Your task to perform on an android device: Go to eBay Image 0: 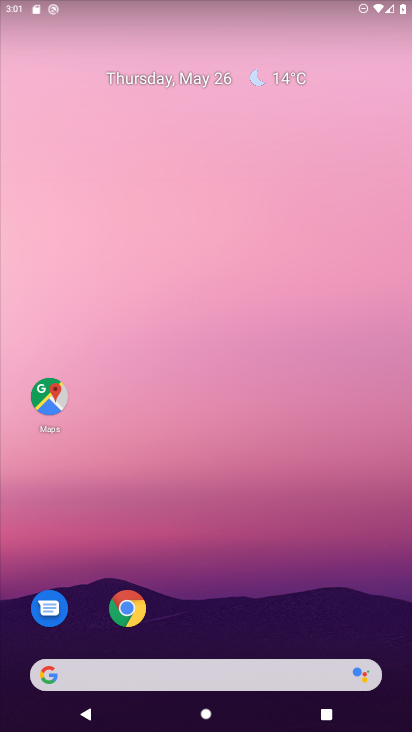
Step 0: drag from (357, 480) to (347, 102)
Your task to perform on an android device: Go to eBay Image 1: 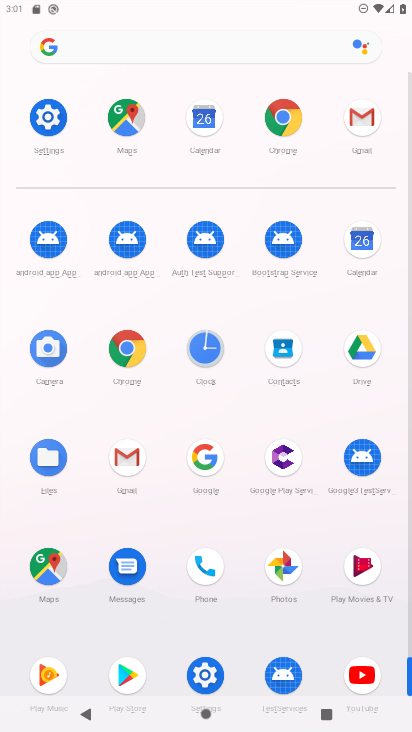
Step 1: click (283, 128)
Your task to perform on an android device: Go to eBay Image 2: 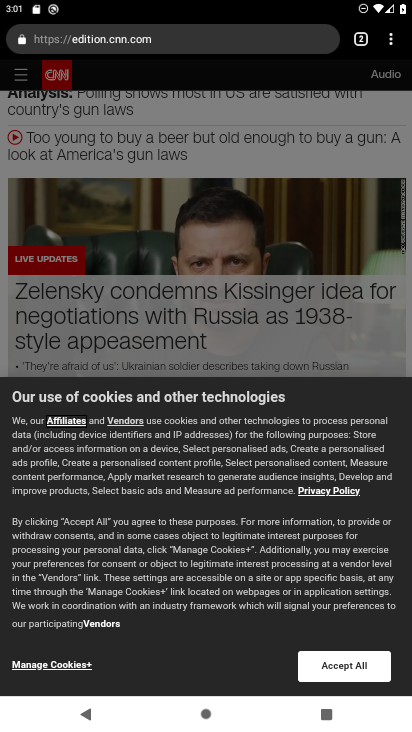
Step 2: click (159, 41)
Your task to perform on an android device: Go to eBay Image 3: 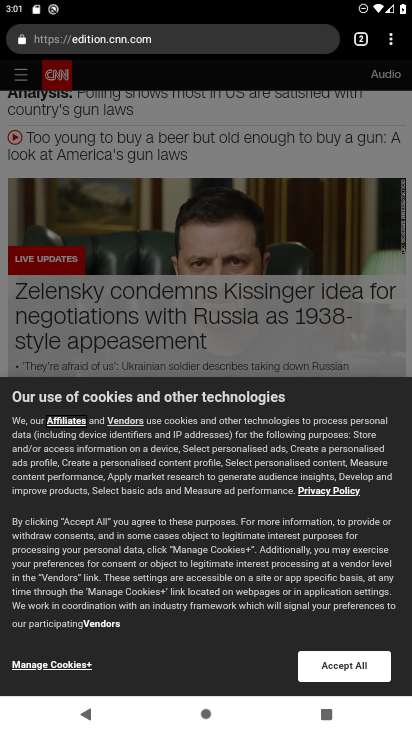
Step 3: click (159, 41)
Your task to perform on an android device: Go to eBay Image 4: 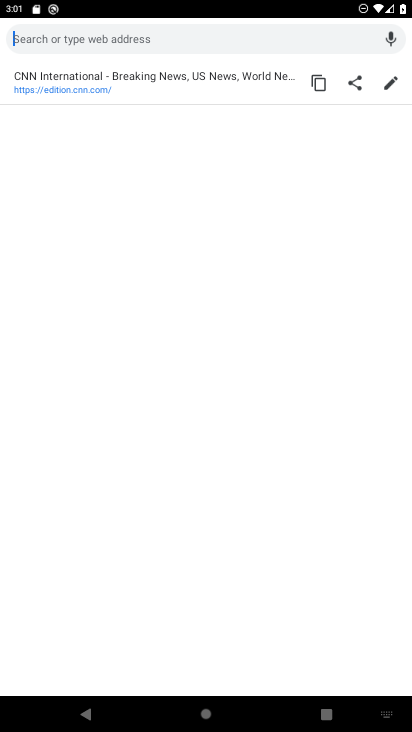
Step 4: type "ebay"
Your task to perform on an android device: Go to eBay Image 5: 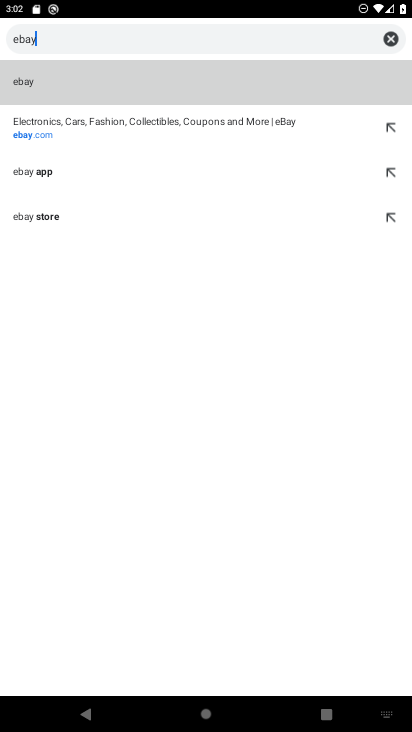
Step 5: click (54, 139)
Your task to perform on an android device: Go to eBay Image 6: 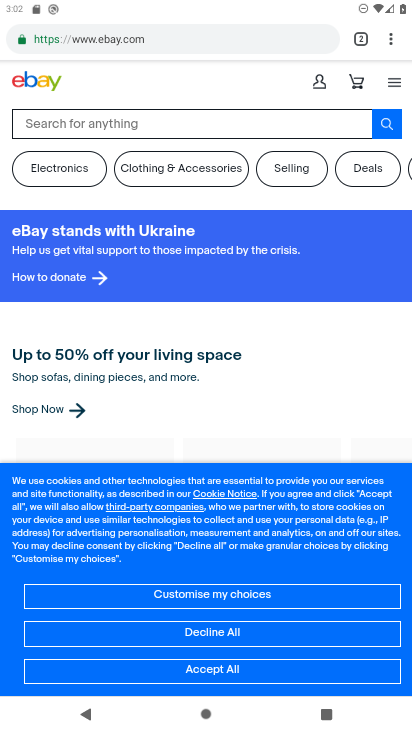
Step 6: task complete